Your task to perform on an android device: allow notifications from all sites in the chrome app Image 0: 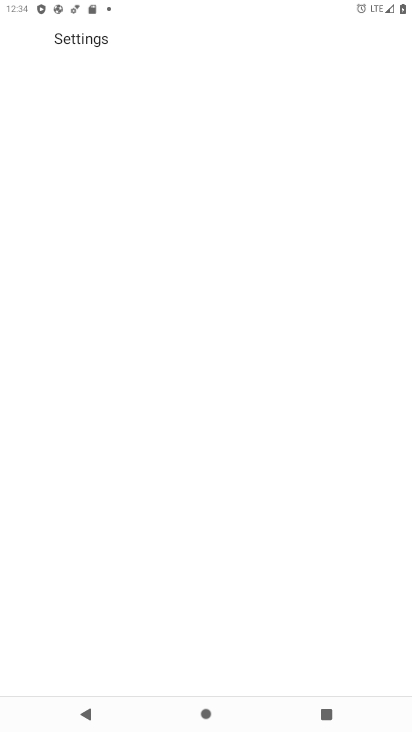
Step 0: drag from (221, 616) to (220, 467)
Your task to perform on an android device: allow notifications from all sites in the chrome app Image 1: 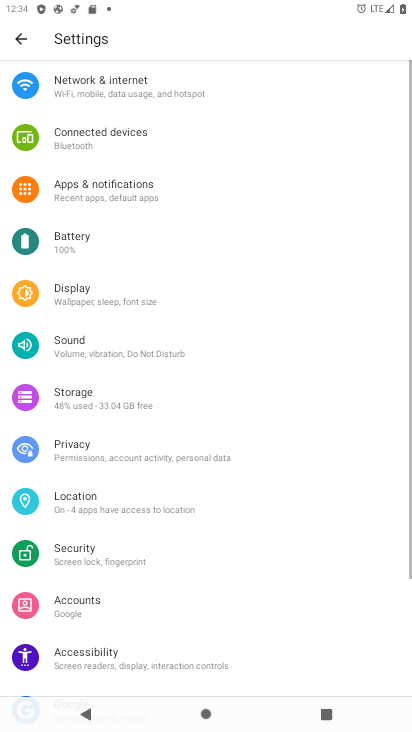
Step 1: press home button
Your task to perform on an android device: allow notifications from all sites in the chrome app Image 2: 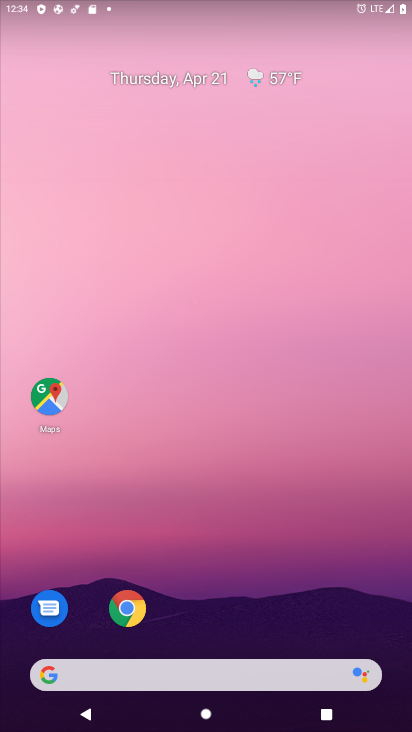
Step 2: click (142, 607)
Your task to perform on an android device: allow notifications from all sites in the chrome app Image 3: 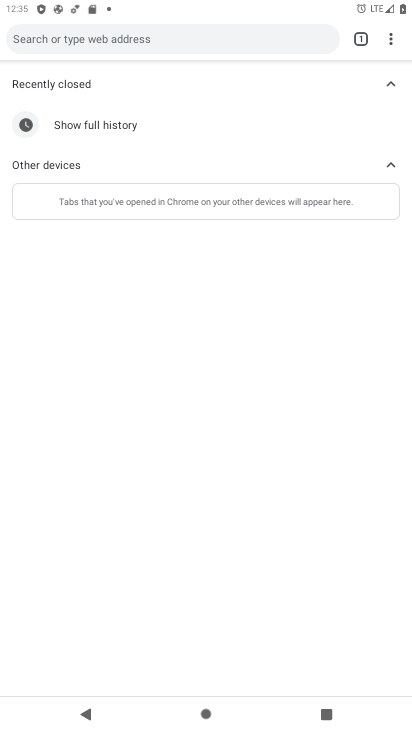
Step 3: drag from (391, 40) to (254, 366)
Your task to perform on an android device: allow notifications from all sites in the chrome app Image 4: 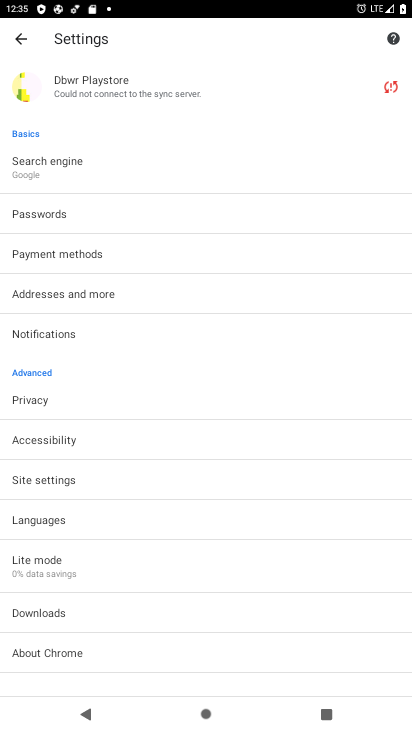
Step 4: drag from (160, 643) to (181, 217)
Your task to perform on an android device: allow notifications from all sites in the chrome app Image 5: 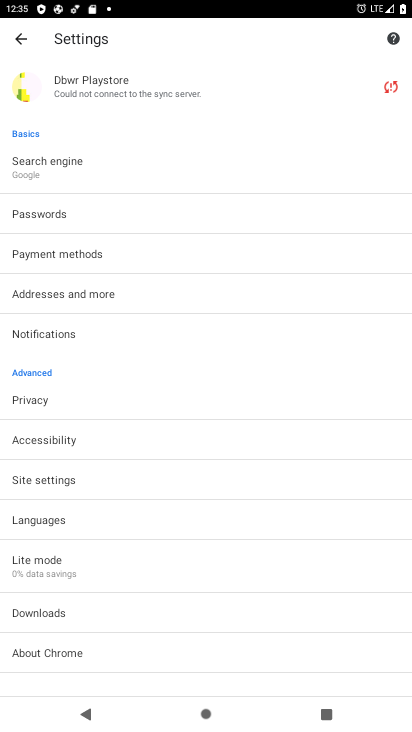
Step 5: click (56, 486)
Your task to perform on an android device: allow notifications from all sites in the chrome app Image 6: 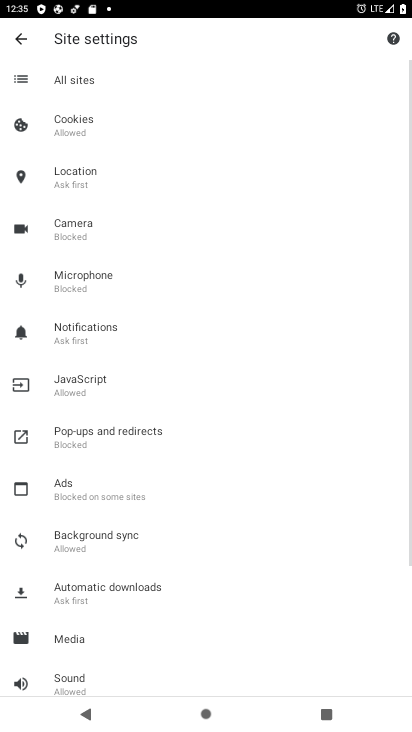
Step 6: click (114, 82)
Your task to perform on an android device: allow notifications from all sites in the chrome app Image 7: 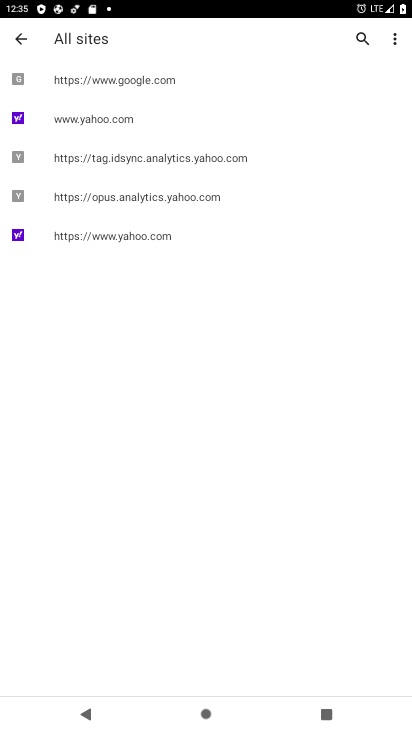
Step 7: click (163, 82)
Your task to perform on an android device: allow notifications from all sites in the chrome app Image 8: 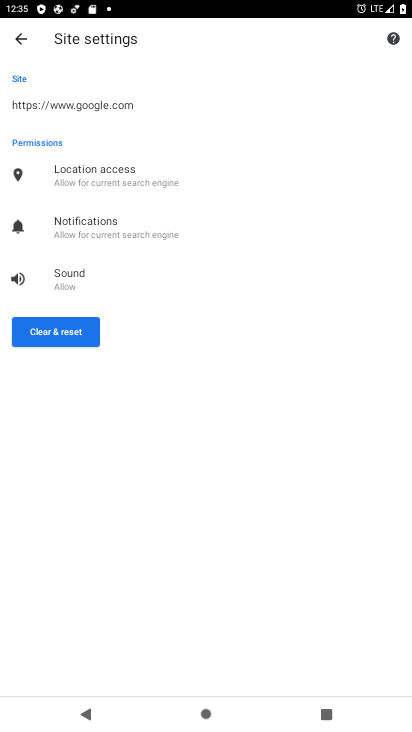
Step 8: click (120, 227)
Your task to perform on an android device: allow notifications from all sites in the chrome app Image 9: 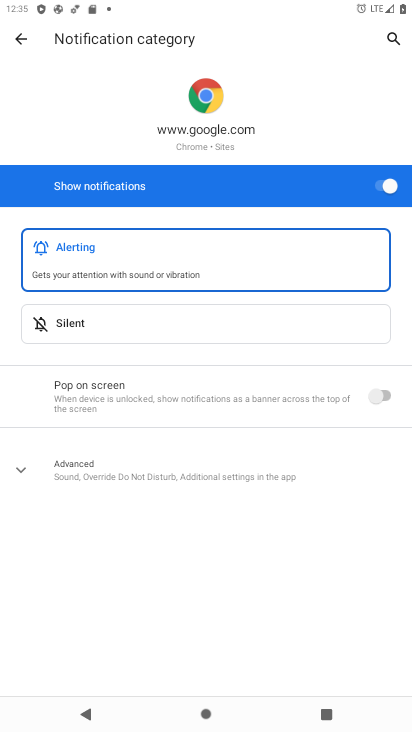
Step 9: task complete